Your task to perform on an android device: Is it going to rain tomorrow? Image 0: 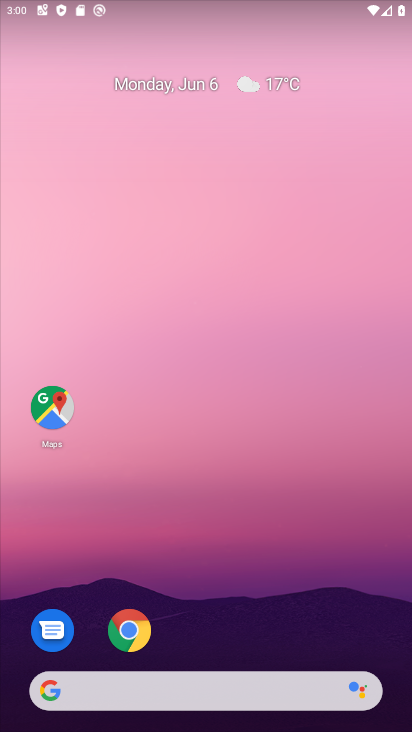
Step 0: click (252, 79)
Your task to perform on an android device: Is it going to rain tomorrow? Image 1: 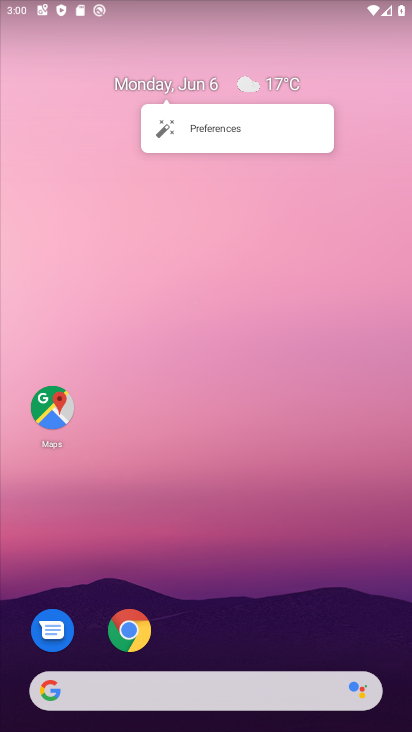
Step 1: click (260, 86)
Your task to perform on an android device: Is it going to rain tomorrow? Image 2: 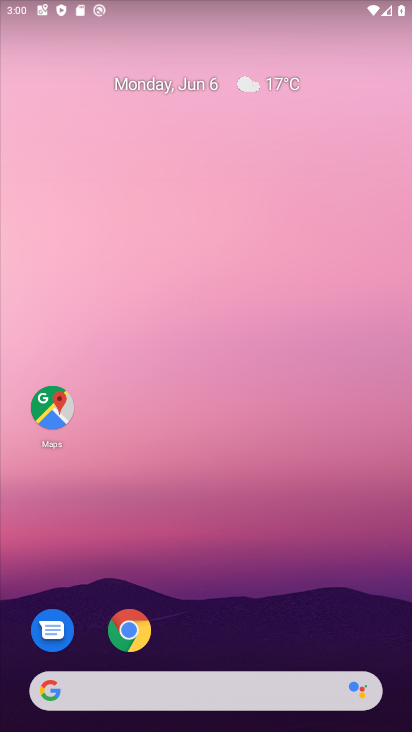
Step 2: click (258, 81)
Your task to perform on an android device: Is it going to rain tomorrow? Image 3: 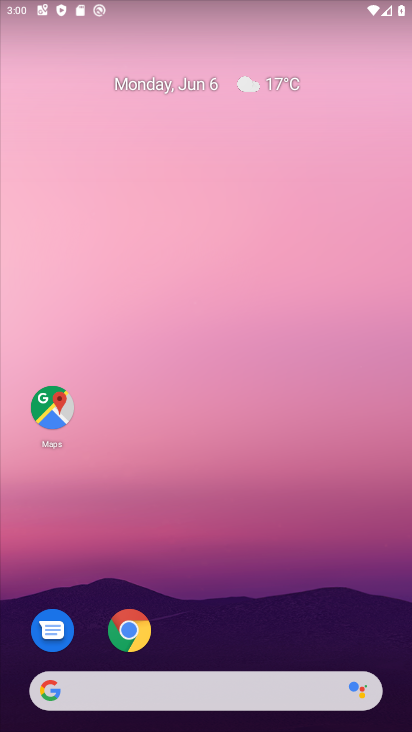
Step 3: click (246, 82)
Your task to perform on an android device: Is it going to rain tomorrow? Image 4: 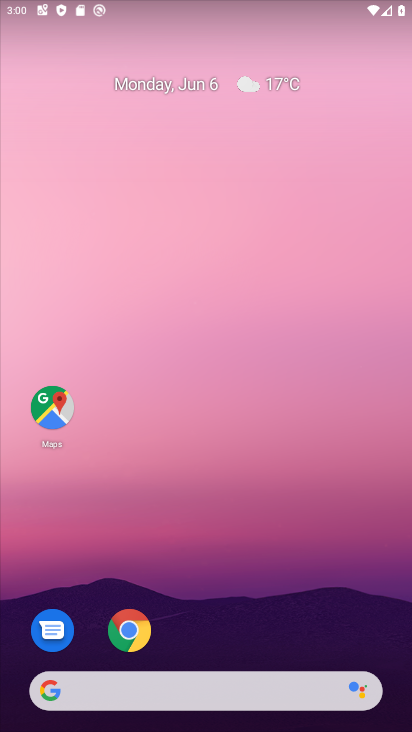
Step 4: click (262, 80)
Your task to perform on an android device: Is it going to rain tomorrow? Image 5: 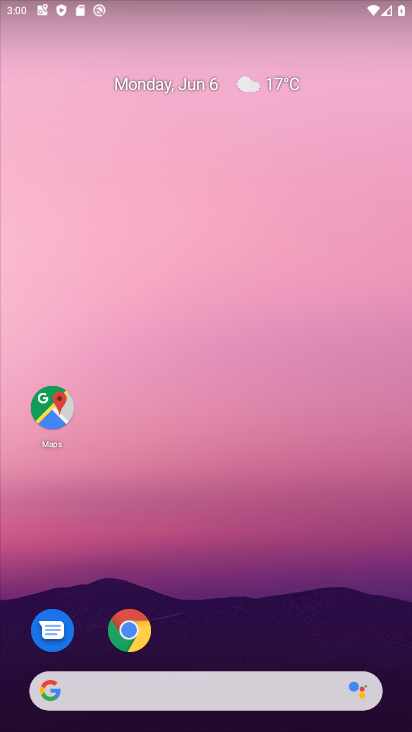
Step 5: click (258, 83)
Your task to perform on an android device: Is it going to rain tomorrow? Image 6: 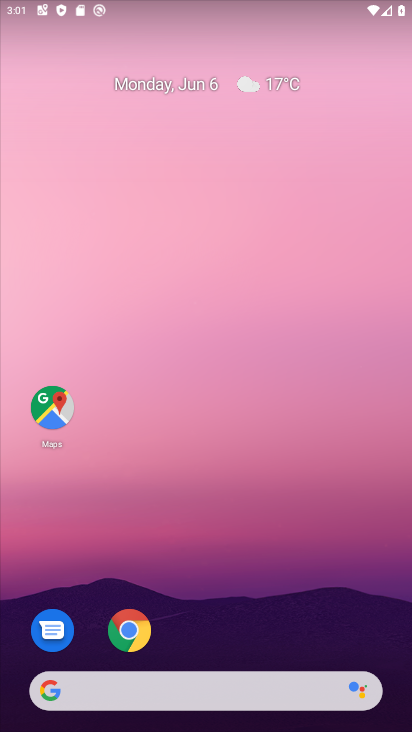
Step 6: click (247, 84)
Your task to perform on an android device: Is it going to rain tomorrow? Image 7: 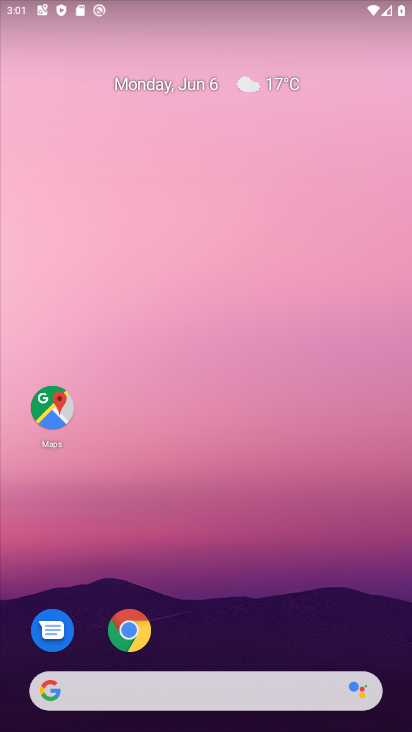
Step 7: click (250, 83)
Your task to perform on an android device: Is it going to rain tomorrow? Image 8: 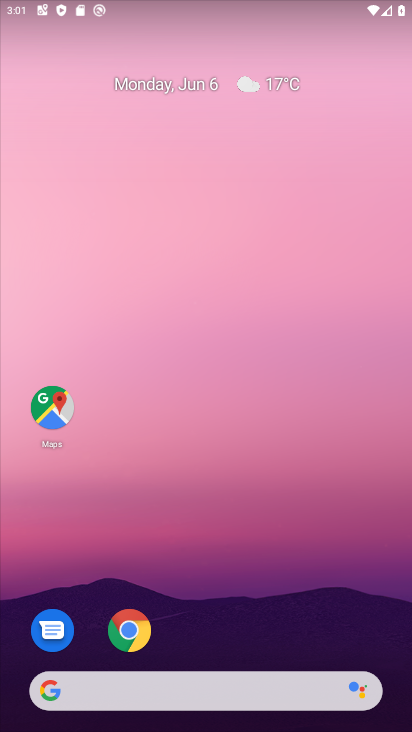
Step 8: click (168, 686)
Your task to perform on an android device: Is it going to rain tomorrow? Image 9: 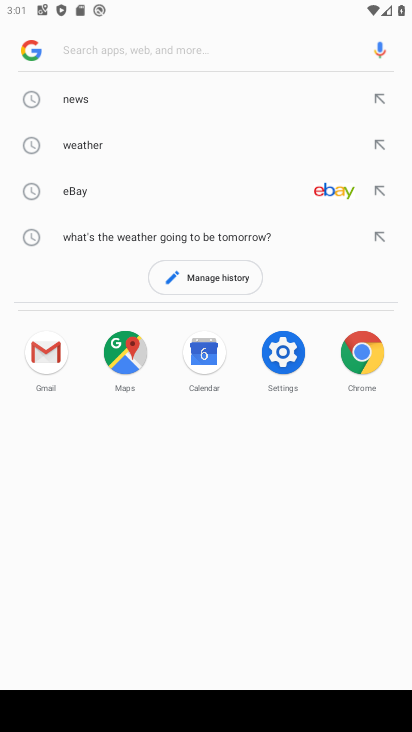
Step 9: click (97, 144)
Your task to perform on an android device: Is it going to rain tomorrow? Image 10: 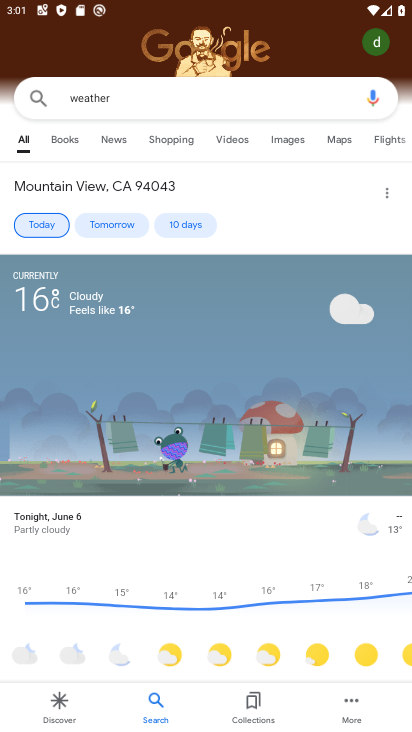
Step 10: click (118, 223)
Your task to perform on an android device: Is it going to rain tomorrow? Image 11: 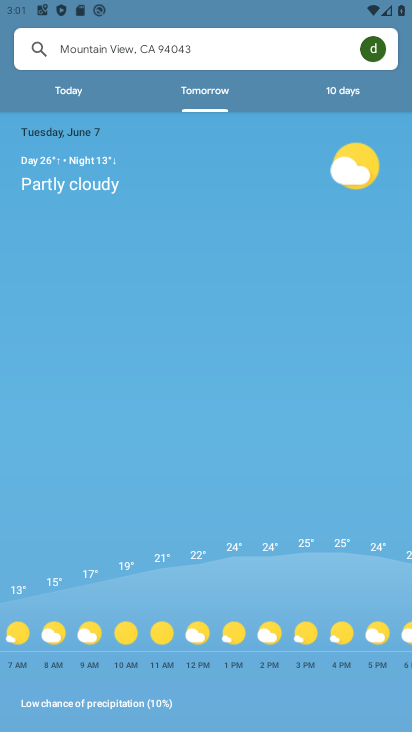
Step 11: task complete